Your task to perform on an android device: turn off improve location accuracy Image 0: 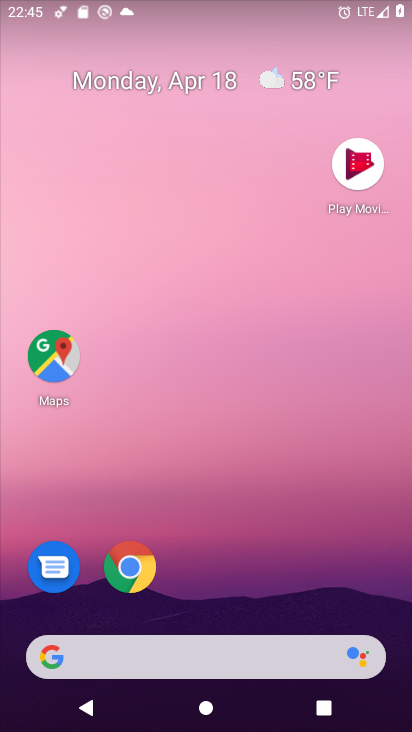
Step 0: click (233, 22)
Your task to perform on an android device: turn off improve location accuracy Image 1: 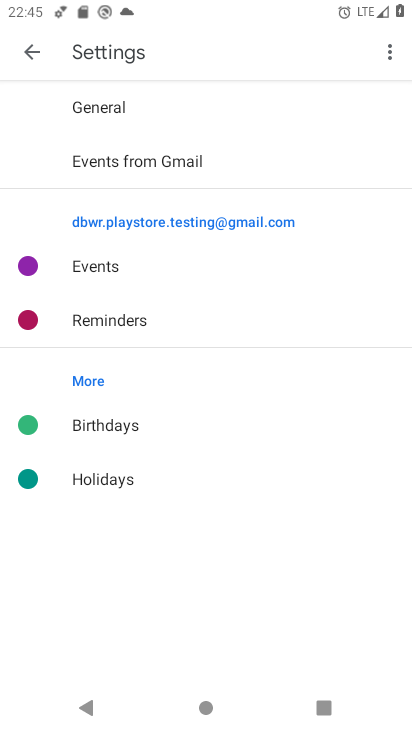
Step 1: drag from (204, 509) to (263, 205)
Your task to perform on an android device: turn off improve location accuracy Image 2: 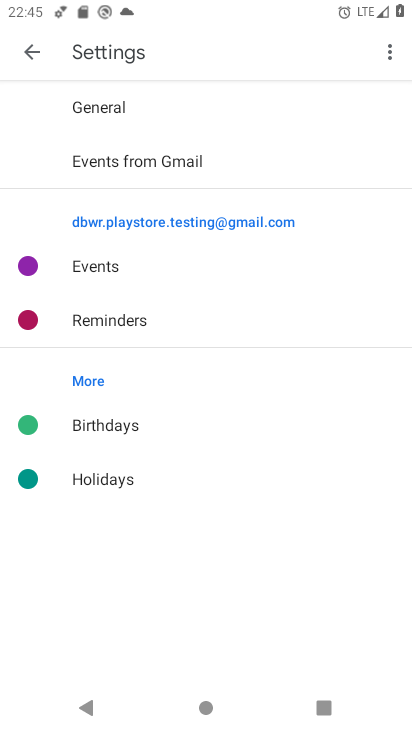
Step 2: press home button
Your task to perform on an android device: turn off improve location accuracy Image 3: 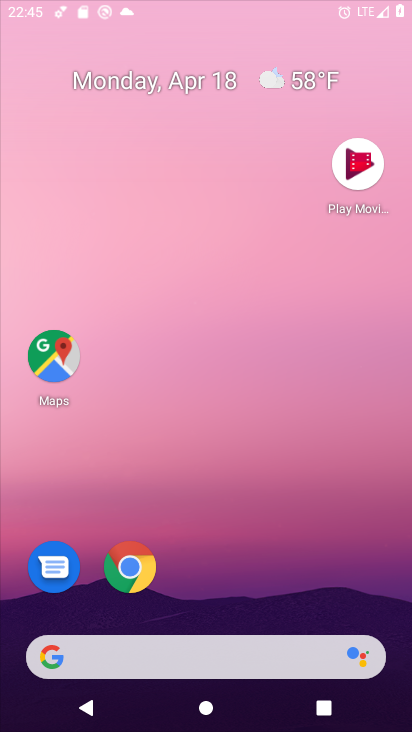
Step 3: drag from (189, 629) to (213, 357)
Your task to perform on an android device: turn off improve location accuracy Image 4: 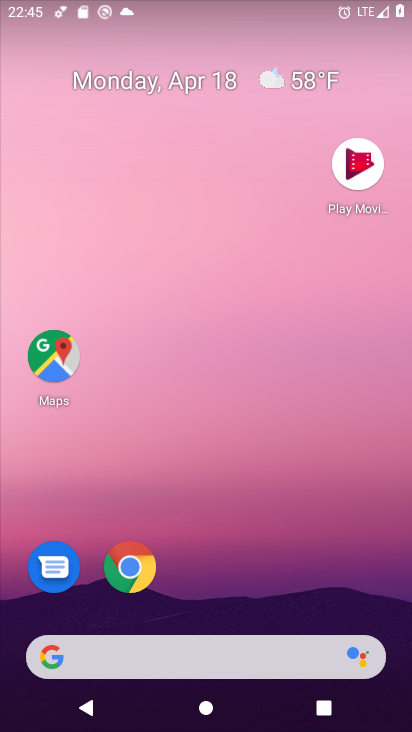
Step 4: drag from (207, 536) to (202, 70)
Your task to perform on an android device: turn off improve location accuracy Image 5: 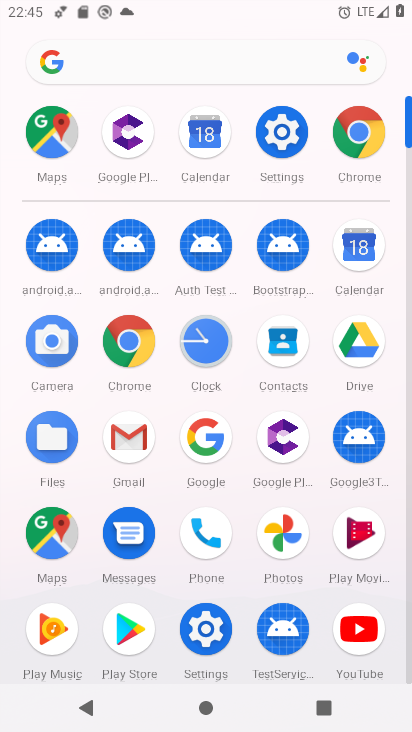
Step 5: drag from (169, 632) to (172, 222)
Your task to perform on an android device: turn off improve location accuracy Image 6: 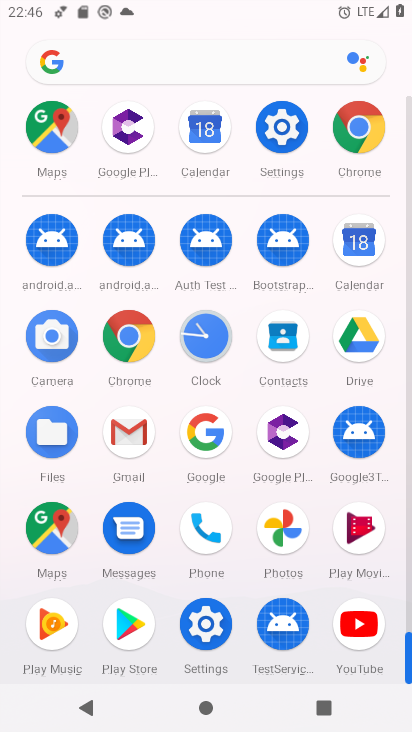
Step 6: click (195, 619)
Your task to perform on an android device: turn off improve location accuracy Image 7: 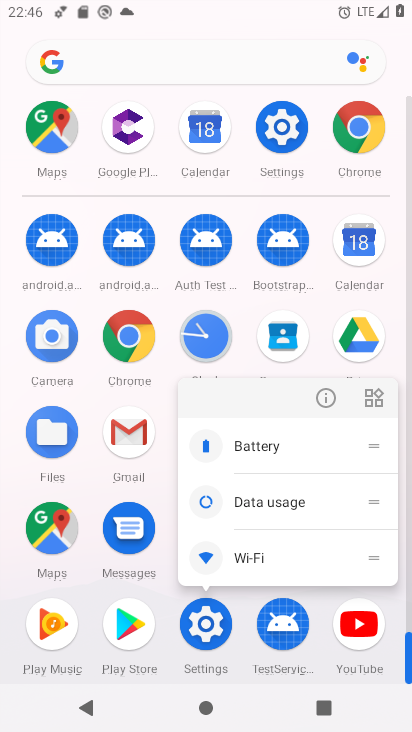
Step 7: click (317, 395)
Your task to perform on an android device: turn off improve location accuracy Image 8: 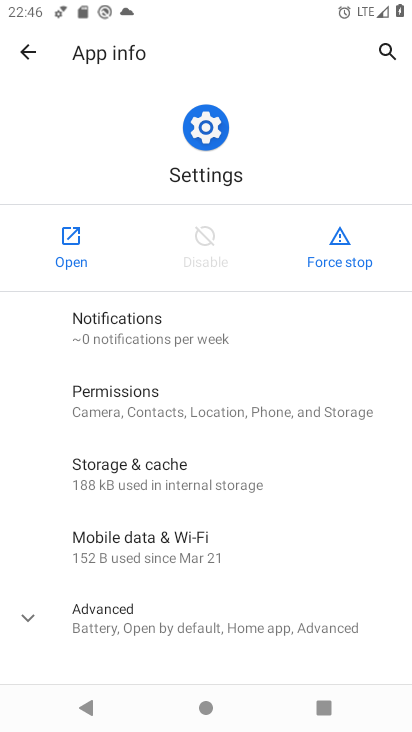
Step 8: click (68, 233)
Your task to perform on an android device: turn off improve location accuracy Image 9: 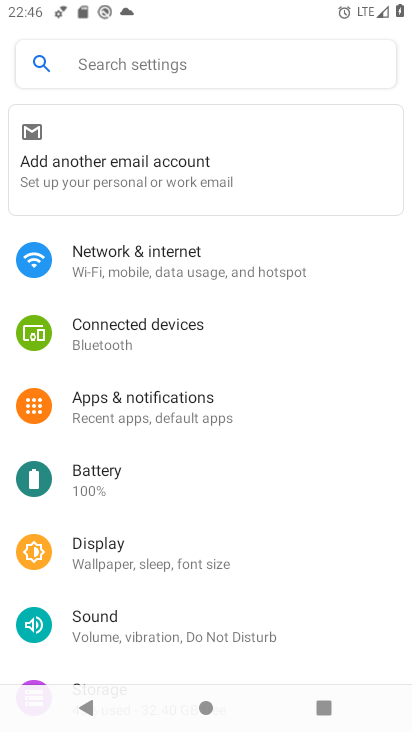
Step 9: drag from (187, 570) to (253, 214)
Your task to perform on an android device: turn off improve location accuracy Image 10: 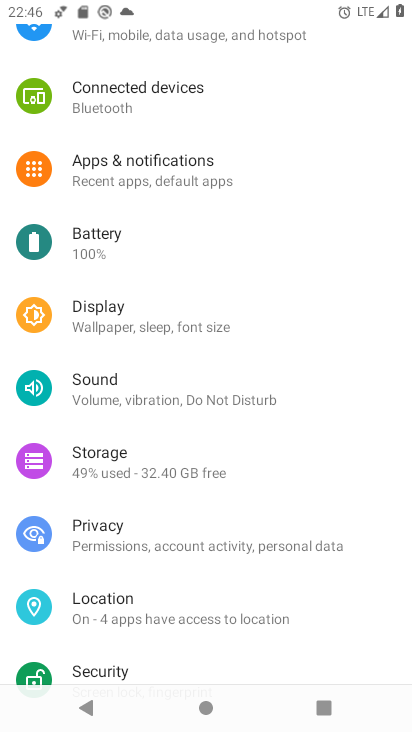
Step 10: drag from (193, 619) to (266, 265)
Your task to perform on an android device: turn off improve location accuracy Image 11: 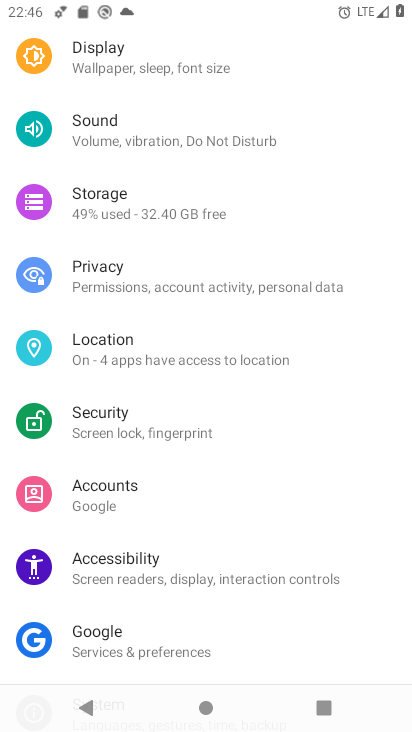
Step 11: click (166, 357)
Your task to perform on an android device: turn off improve location accuracy Image 12: 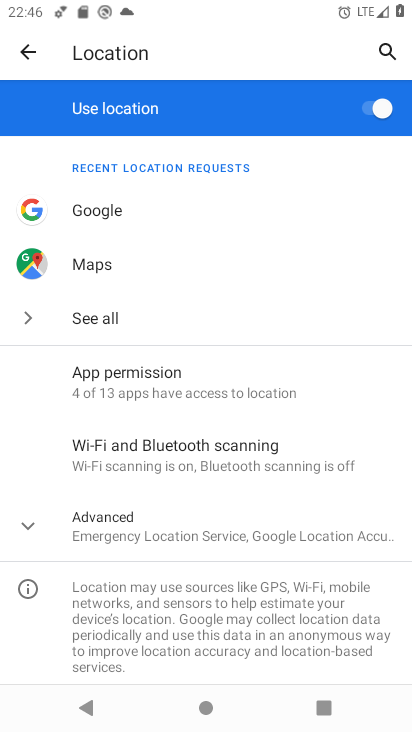
Step 12: click (107, 507)
Your task to perform on an android device: turn off improve location accuracy Image 13: 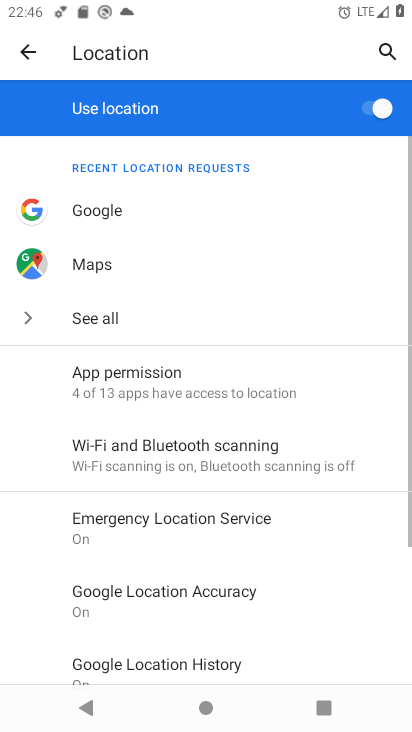
Step 13: drag from (200, 545) to (240, 346)
Your task to perform on an android device: turn off improve location accuracy Image 14: 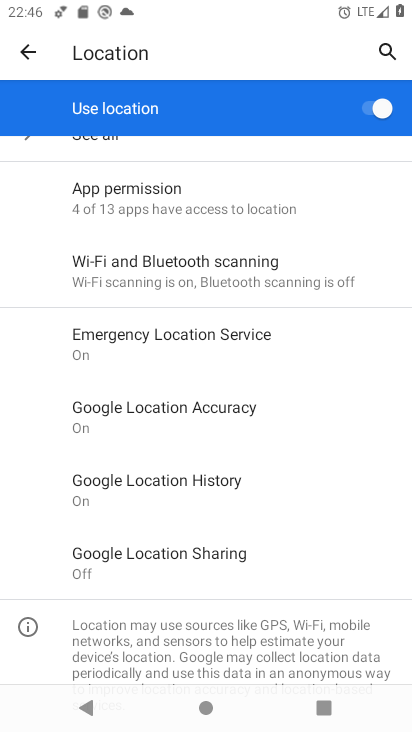
Step 14: click (190, 428)
Your task to perform on an android device: turn off improve location accuracy Image 15: 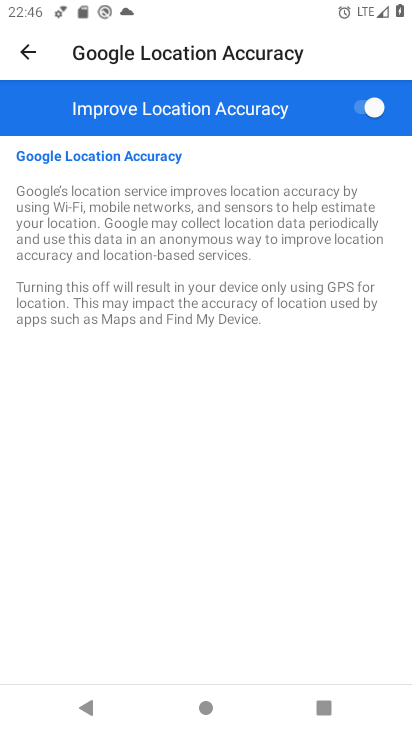
Step 15: drag from (219, 477) to (229, 60)
Your task to perform on an android device: turn off improve location accuracy Image 16: 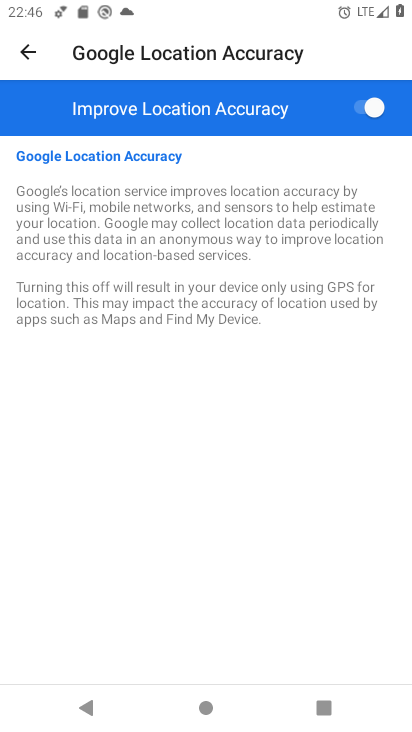
Step 16: drag from (130, 496) to (271, 172)
Your task to perform on an android device: turn off improve location accuracy Image 17: 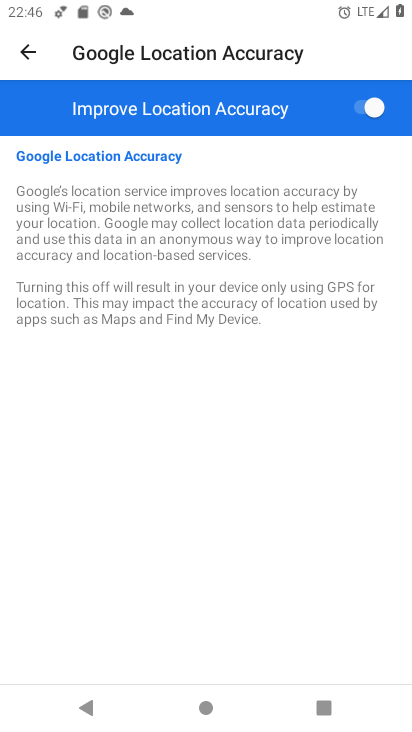
Step 17: click (365, 126)
Your task to perform on an android device: turn off improve location accuracy Image 18: 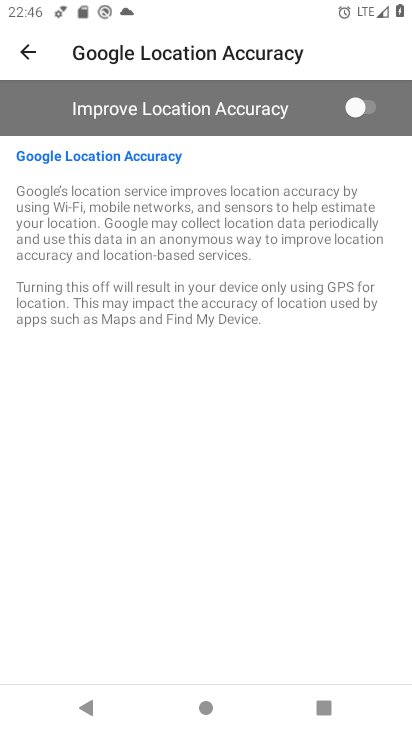
Step 18: task complete